Your task to perform on an android device: Show me the alarms in the clock app Image 0: 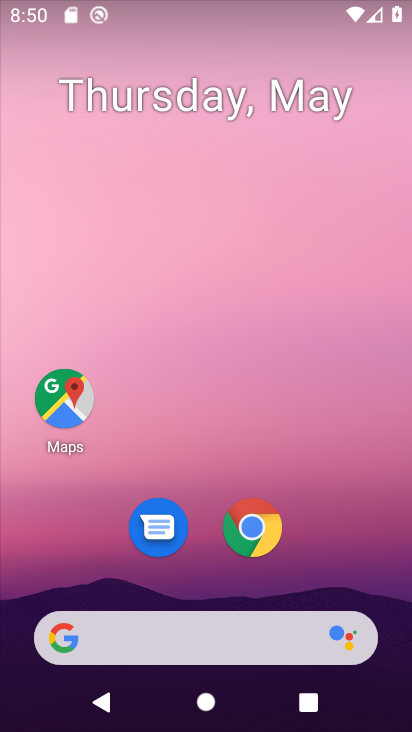
Step 0: drag from (303, 581) to (284, 14)
Your task to perform on an android device: Show me the alarms in the clock app Image 1: 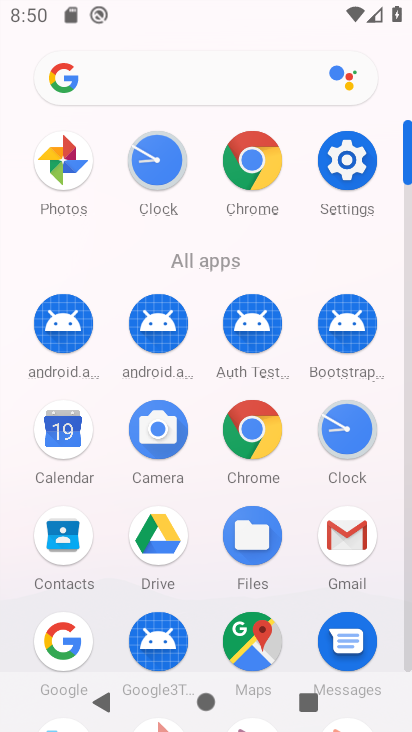
Step 1: click (148, 158)
Your task to perform on an android device: Show me the alarms in the clock app Image 2: 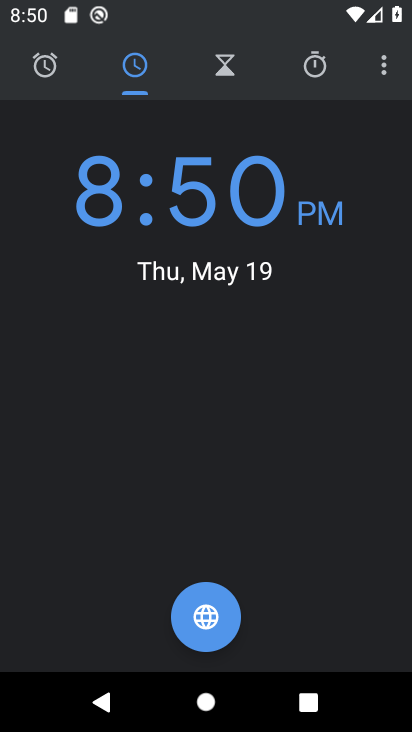
Step 2: click (49, 74)
Your task to perform on an android device: Show me the alarms in the clock app Image 3: 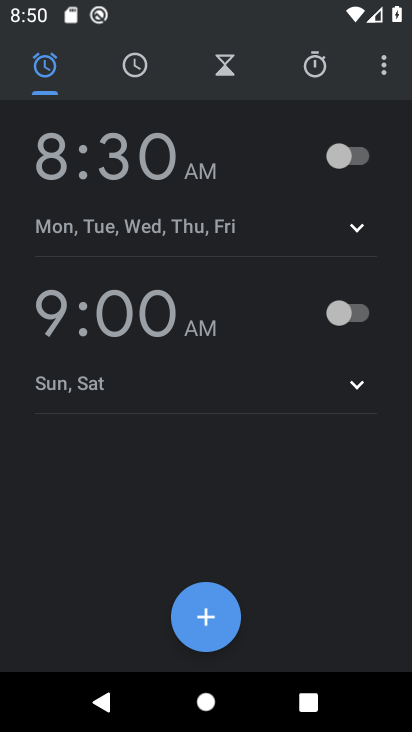
Step 3: task complete